Your task to perform on an android device: Open eBay Image 0: 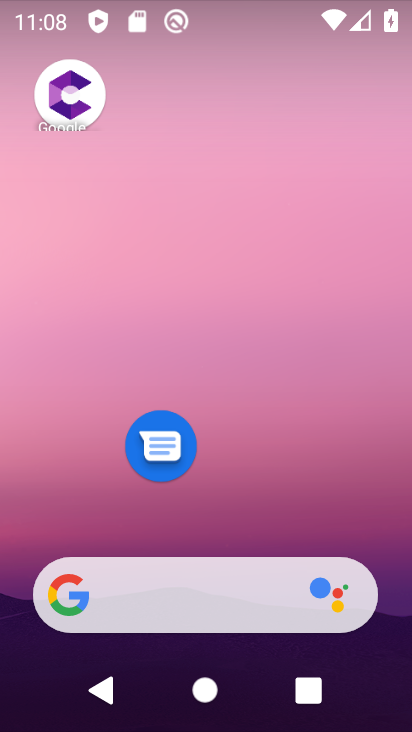
Step 0: drag from (282, 467) to (240, 135)
Your task to perform on an android device: Open eBay Image 1: 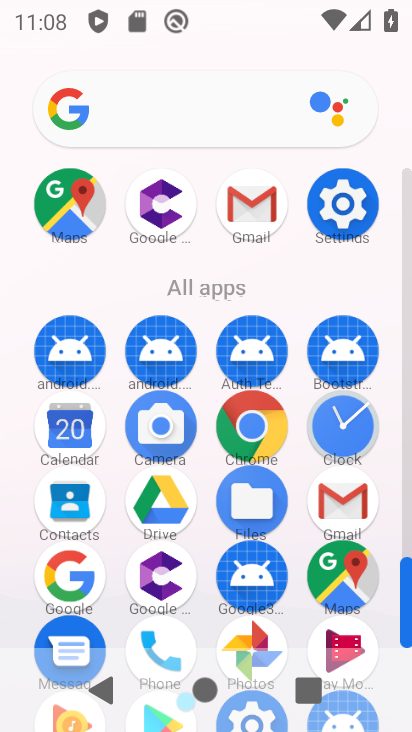
Step 1: click (264, 432)
Your task to perform on an android device: Open eBay Image 2: 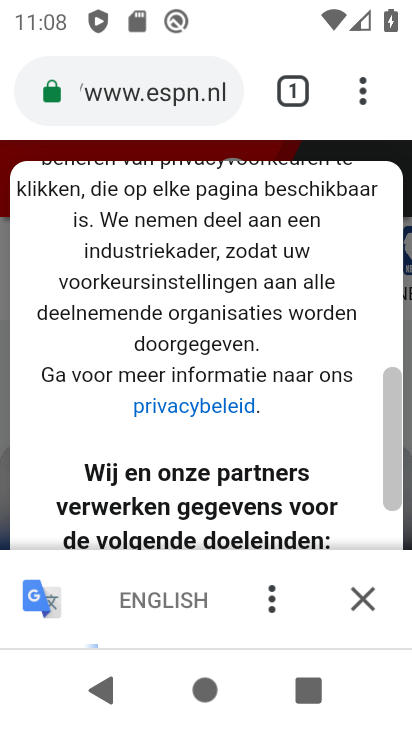
Step 2: click (290, 92)
Your task to perform on an android device: Open eBay Image 3: 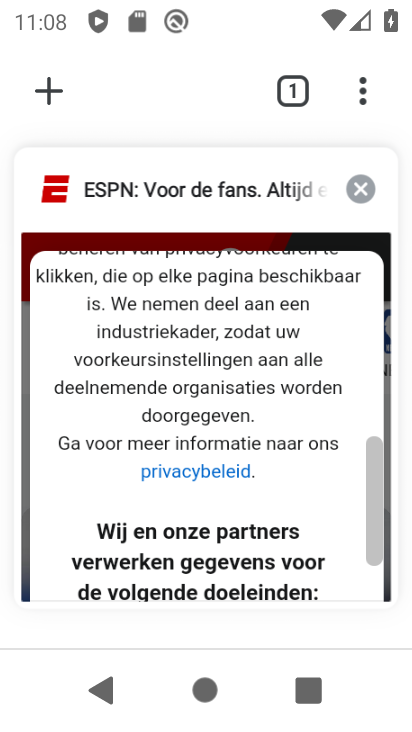
Step 3: click (49, 87)
Your task to perform on an android device: Open eBay Image 4: 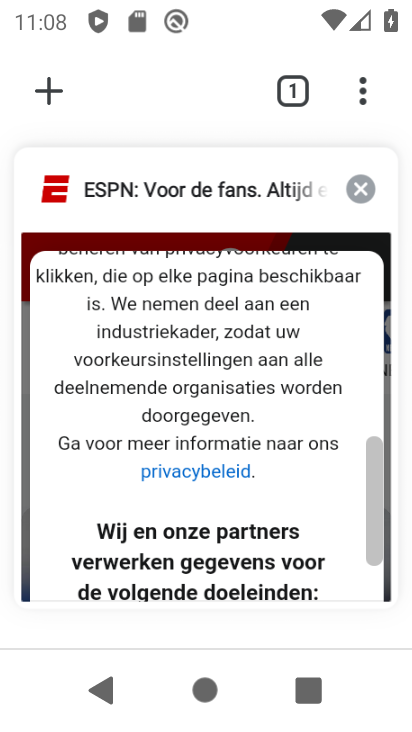
Step 4: click (49, 87)
Your task to perform on an android device: Open eBay Image 5: 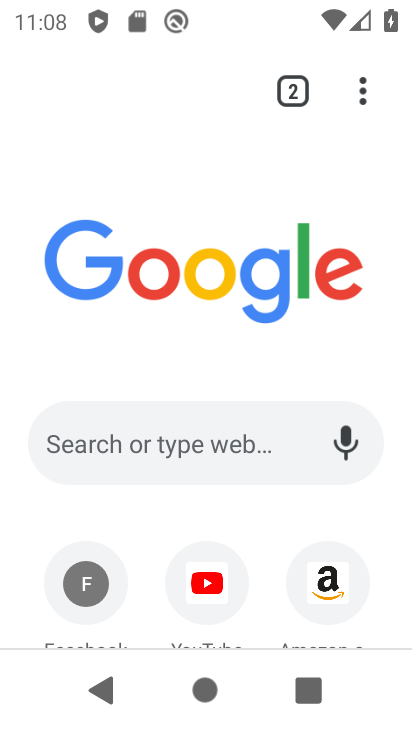
Step 5: drag from (154, 554) to (171, 296)
Your task to perform on an android device: Open eBay Image 6: 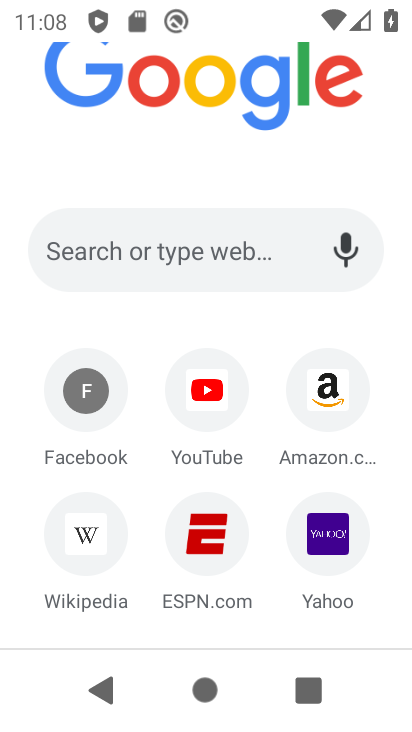
Step 6: click (175, 260)
Your task to perform on an android device: Open eBay Image 7: 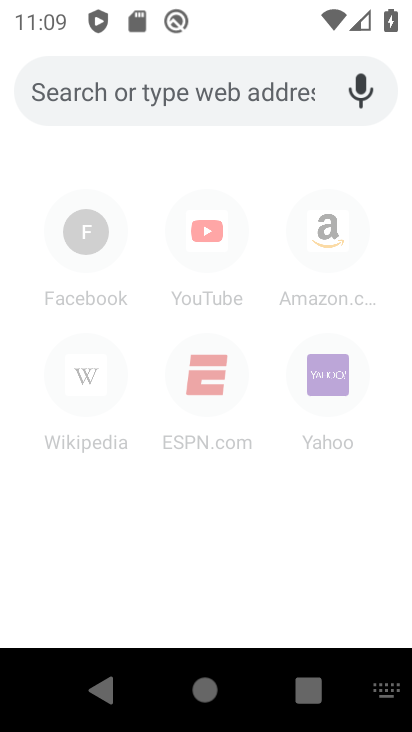
Step 7: type "ebay"
Your task to perform on an android device: Open eBay Image 8: 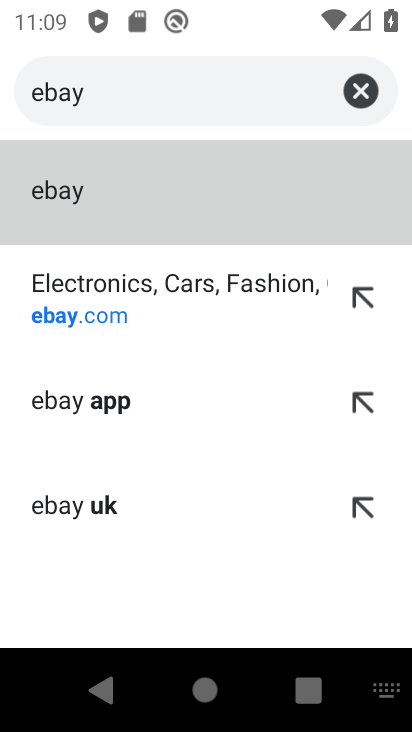
Step 8: click (173, 292)
Your task to perform on an android device: Open eBay Image 9: 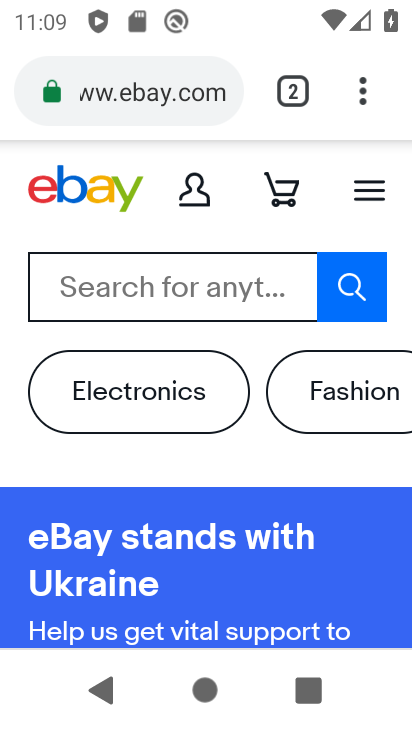
Step 9: task complete